Your task to perform on an android device: Search for seafood restaurants on Google Maps Image 0: 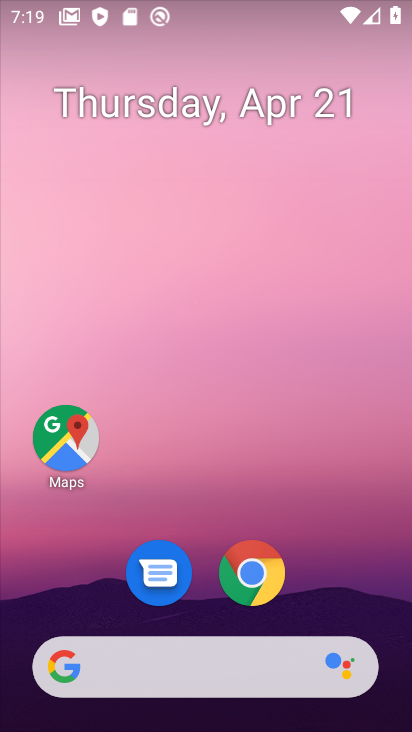
Step 0: drag from (347, 569) to (315, 104)
Your task to perform on an android device: Search for seafood restaurants on Google Maps Image 1: 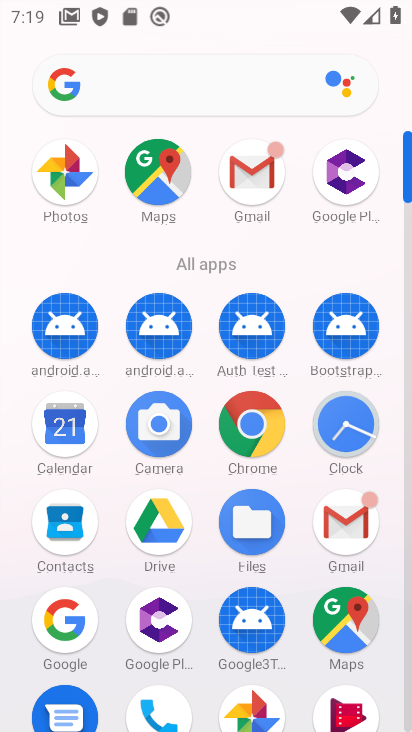
Step 1: click (153, 176)
Your task to perform on an android device: Search for seafood restaurants on Google Maps Image 2: 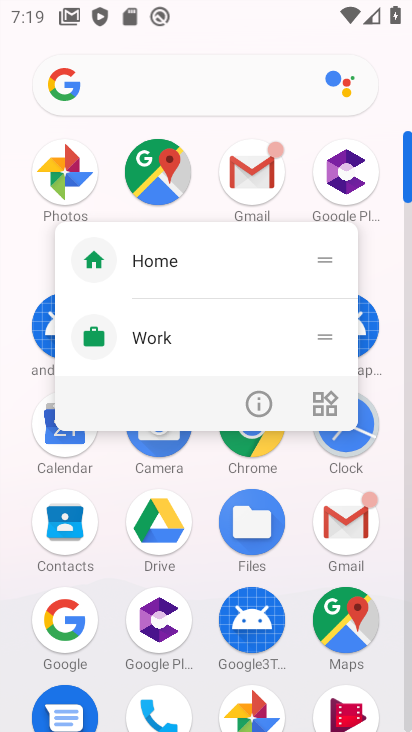
Step 2: click (147, 184)
Your task to perform on an android device: Search for seafood restaurants on Google Maps Image 3: 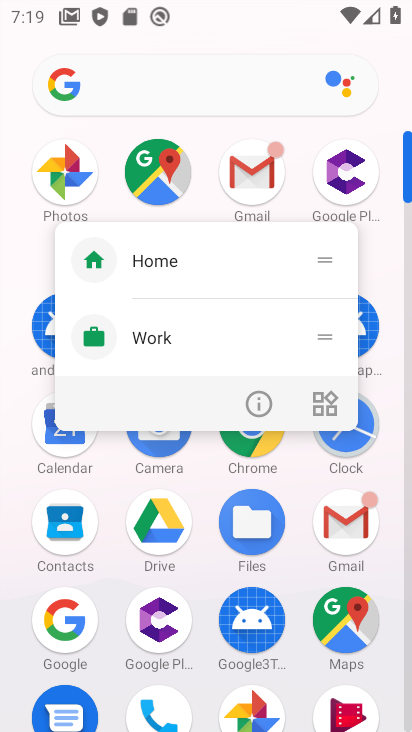
Step 3: click (147, 184)
Your task to perform on an android device: Search for seafood restaurants on Google Maps Image 4: 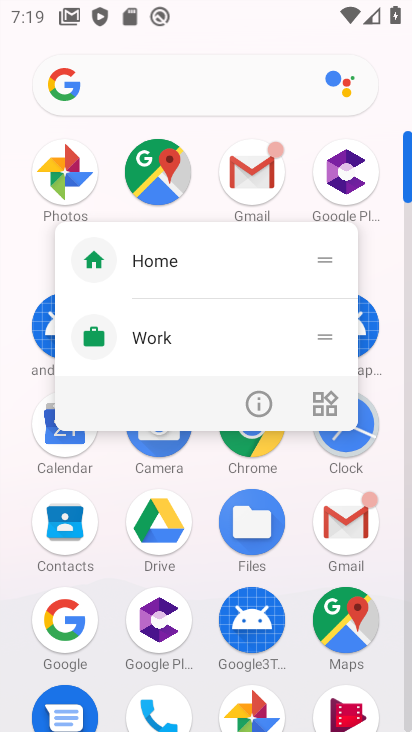
Step 4: click (147, 184)
Your task to perform on an android device: Search for seafood restaurants on Google Maps Image 5: 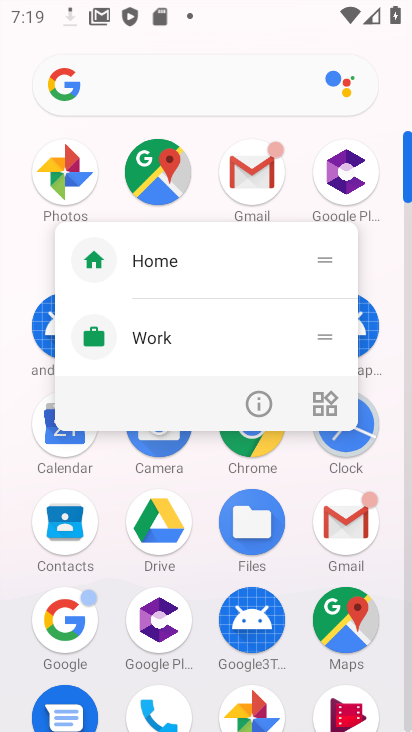
Step 5: click (147, 184)
Your task to perform on an android device: Search for seafood restaurants on Google Maps Image 6: 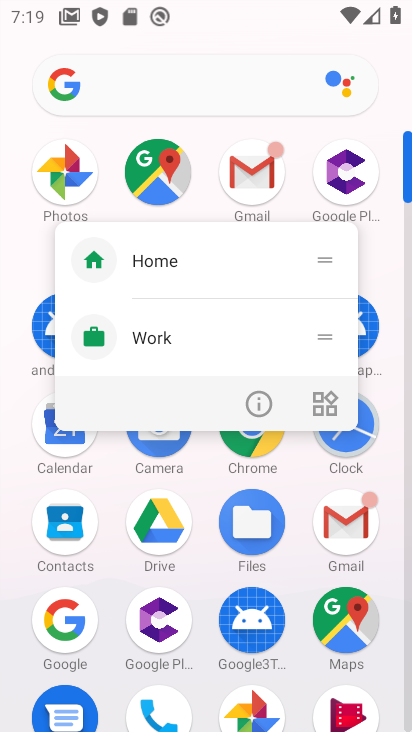
Step 6: click (147, 184)
Your task to perform on an android device: Search for seafood restaurants on Google Maps Image 7: 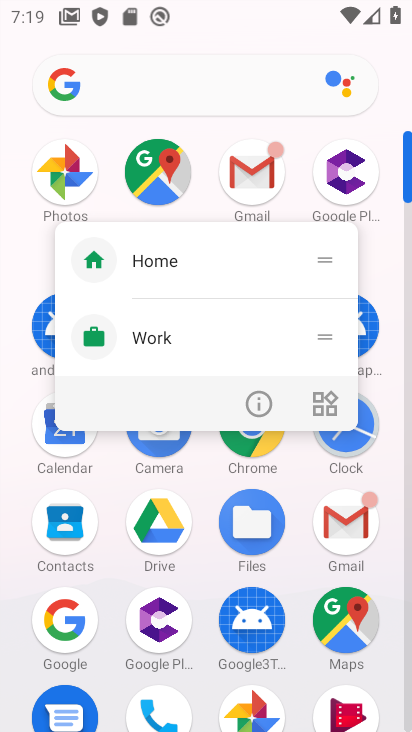
Step 7: click (147, 184)
Your task to perform on an android device: Search for seafood restaurants on Google Maps Image 8: 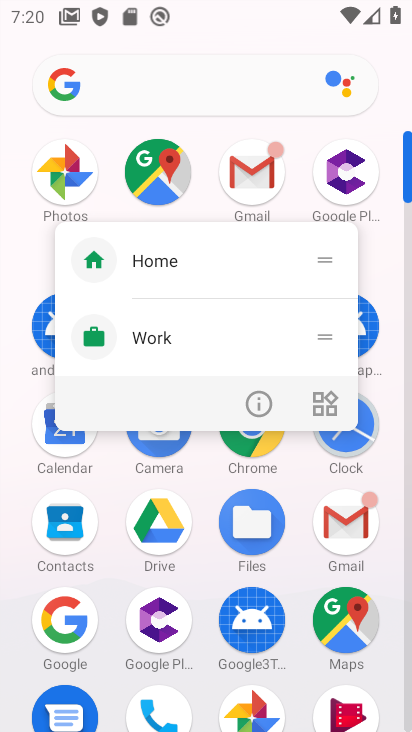
Step 8: click (147, 184)
Your task to perform on an android device: Search for seafood restaurants on Google Maps Image 9: 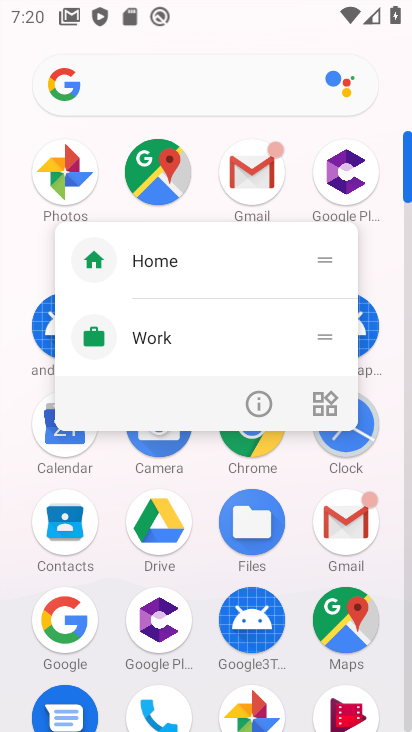
Step 9: click (147, 184)
Your task to perform on an android device: Search for seafood restaurants on Google Maps Image 10: 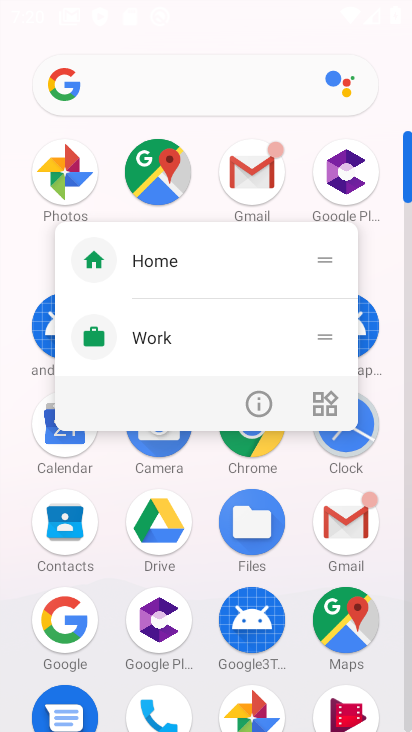
Step 10: click (147, 184)
Your task to perform on an android device: Search for seafood restaurants on Google Maps Image 11: 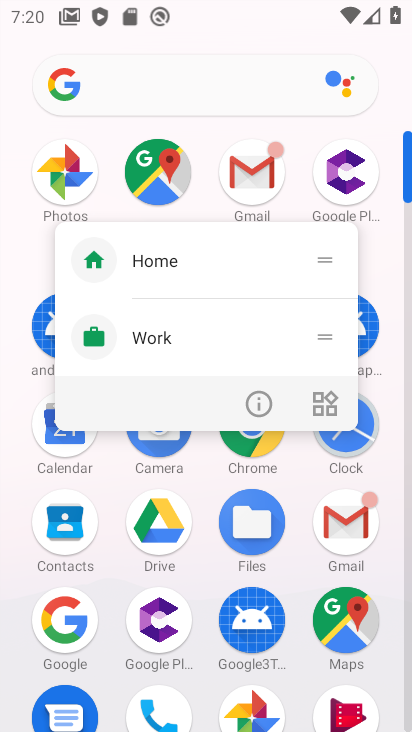
Step 11: click (147, 184)
Your task to perform on an android device: Search for seafood restaurants on Google Maps Image 12: 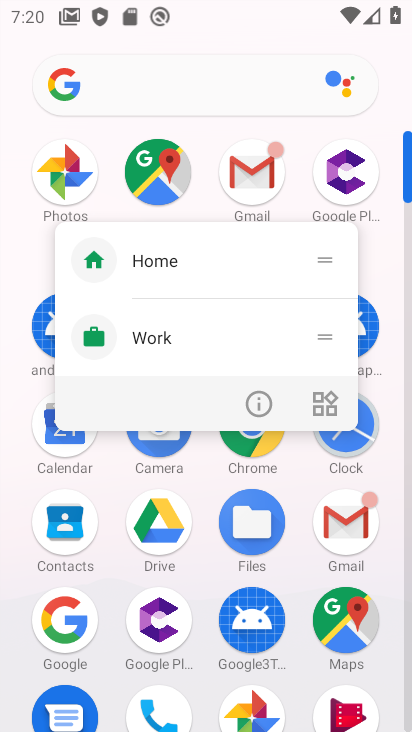
Step 12: click (147, 184)
Your task to perform on an android device: Search for seafood restaurants on Google Maps Image 13: 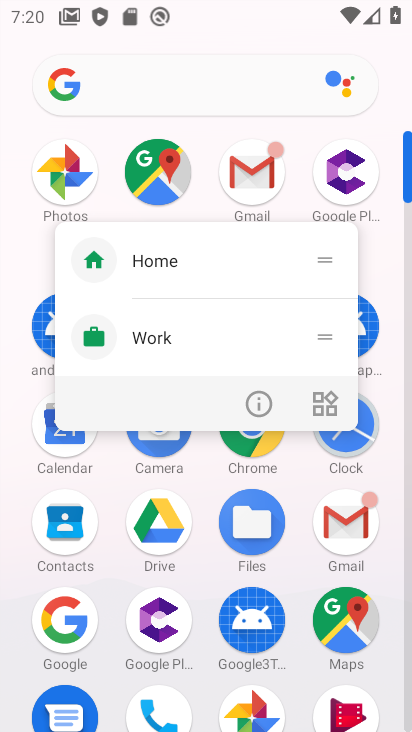
Step 13: click (147, 184)
Your task to perform on an android device: Search for seafood restaurants on Google Maps Image 14: 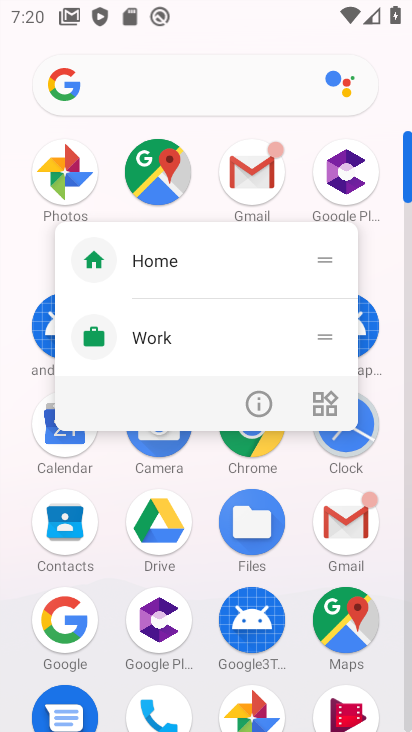
Step 14: click (150, 179)
Your task to perform on an android device: Search for seafood restaurants on Google Maps Image 15: 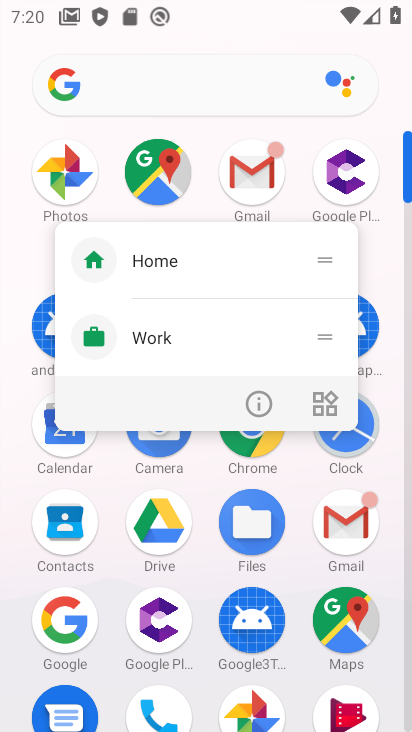
Step 15: click (150, 179)
Your task to perform on an android device: Search for seafood restaurants on Google Maps Image 16: 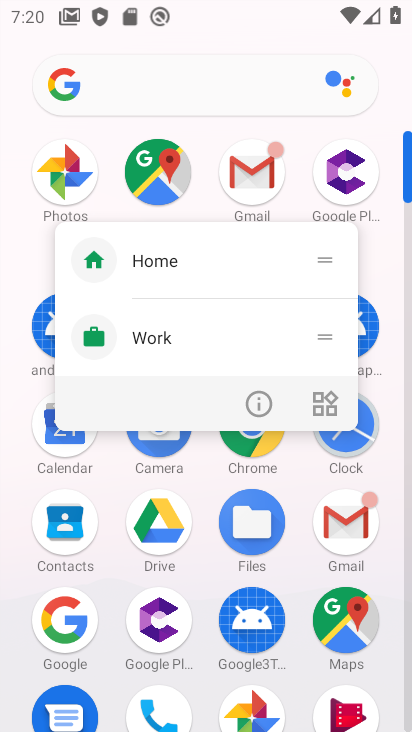
Step 16: click (150, 179)
Your task to perform on an android device: Search for seafood restaurants on Google Maps Image 17: 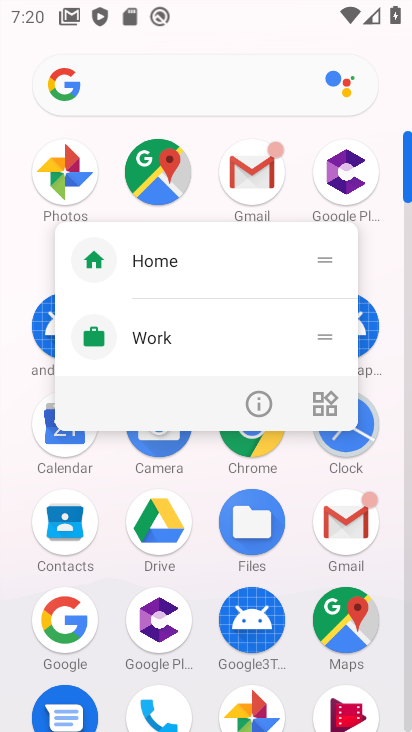
Step 17: click (150, 179)
Your task to perform on an android device: Search for seafood restaurants on Google Maps Image 18: 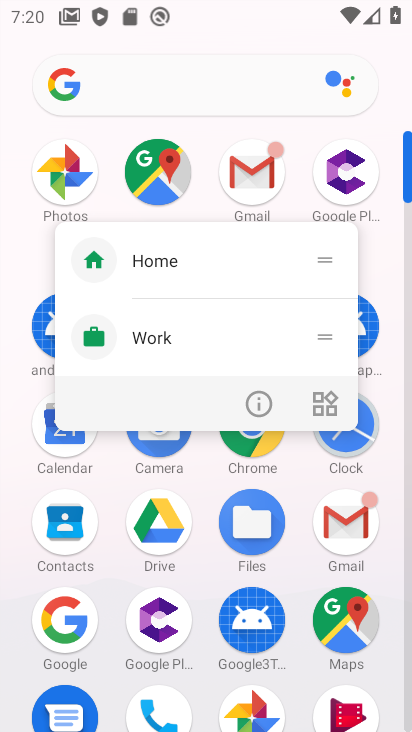
Step 18: click (150, 179)
Your task to perform on an android device: Search for seafood restaurants on Google Maps Image 19: 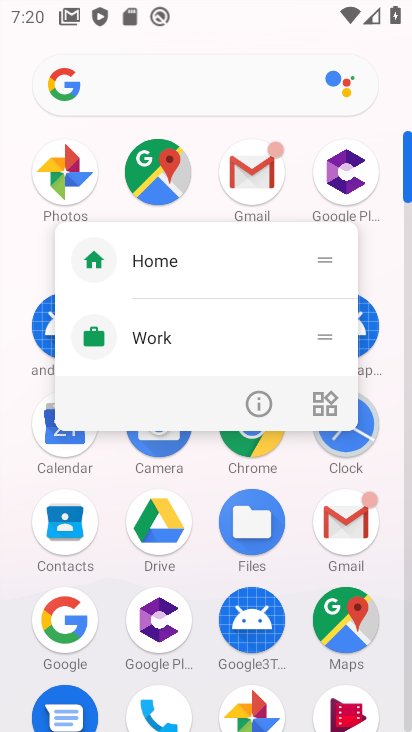
Step 19: click (150, 179)
Your task to perform on an android device: Search for seafood restaurants on Google Maps Image 20: 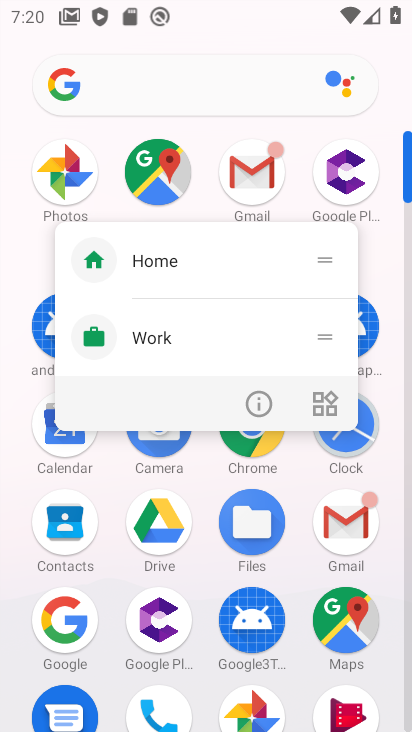
Step 20: click (150, 179)
Your task to perform on an android device: Search for seafood restaurants on Google Maps Image 21: 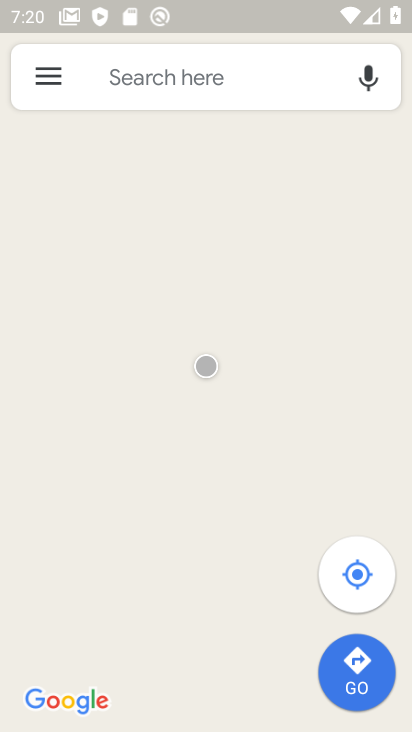
Step 21: click (156, 89)
Your task to perform on an android device: Search for seafood restaurants on Google Maps Image 22: 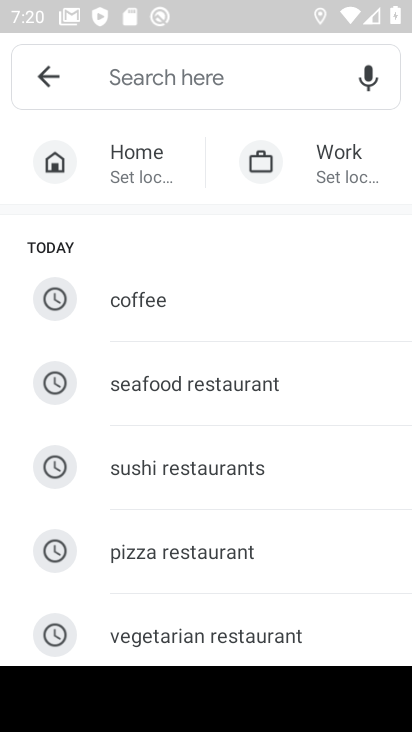
Step 22: type "seafood res"
Your task to perform on an android device: Search for seafood restaurants on Google Maps Image 23: 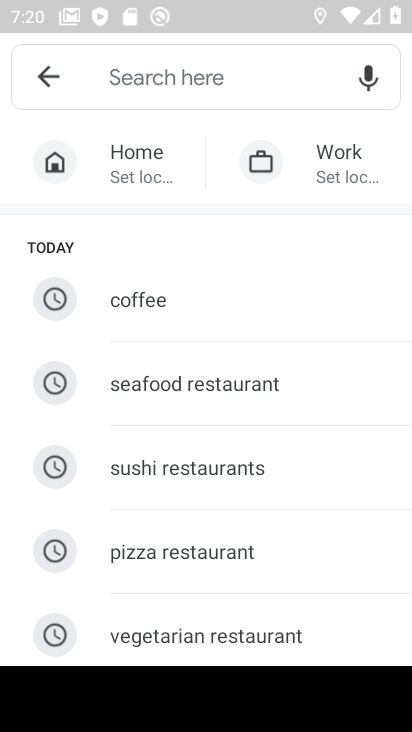
Step 23: click (276, 390)
Your task to perform on an android device: Search for seafood restaurants on Google Maps Image 24: 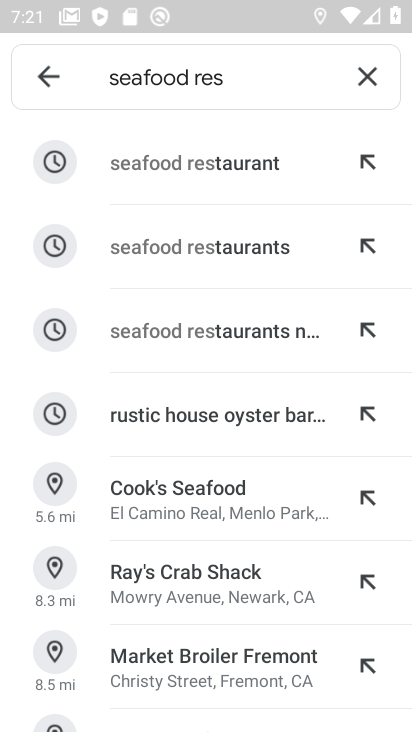
Step 24: click (138, 164)
Your task to perform on an android device: Search for seafood restaurants on Google Maps Image 25: 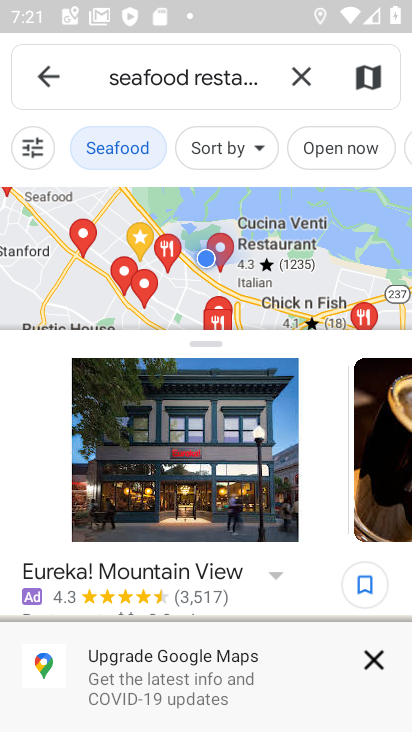
Step 25: task complete